Your task to perform on an android device: add a contact Image 0: 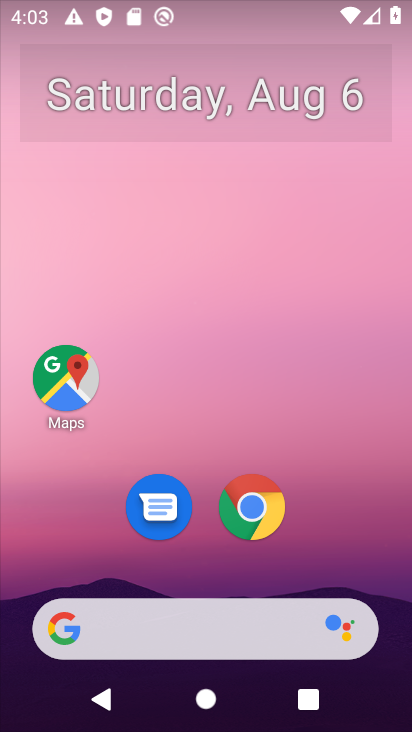
Step 0: drag from (209, 443) to (221, 147)
Your task to perform on an android device: add a contact Image 1: 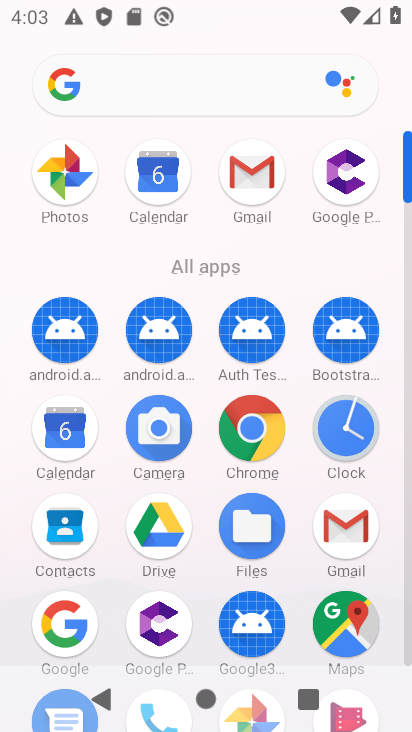
Step 1: drag from (250, 485) to (269, 172)
Your task to perform on an android device: add a contact Image 2: 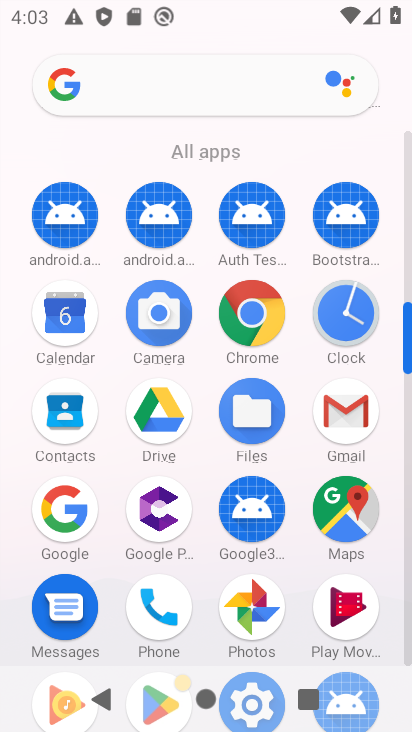
Step 2: click (263, 603)
Your task to perform on an android device: add a contact Image 3: 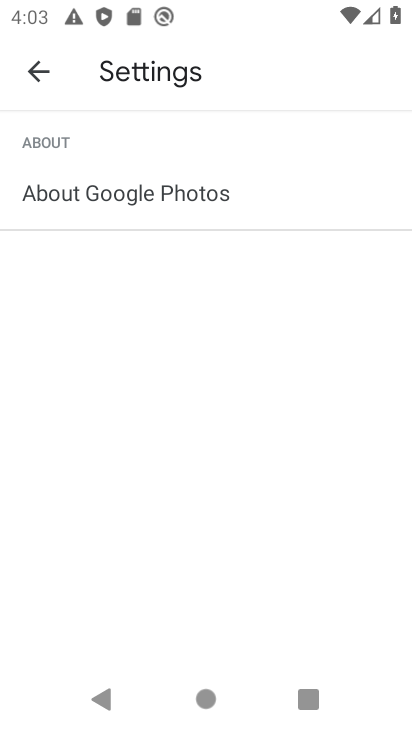
Step 3: press home button
Your task to perform on an android device: add a contact Image 4: 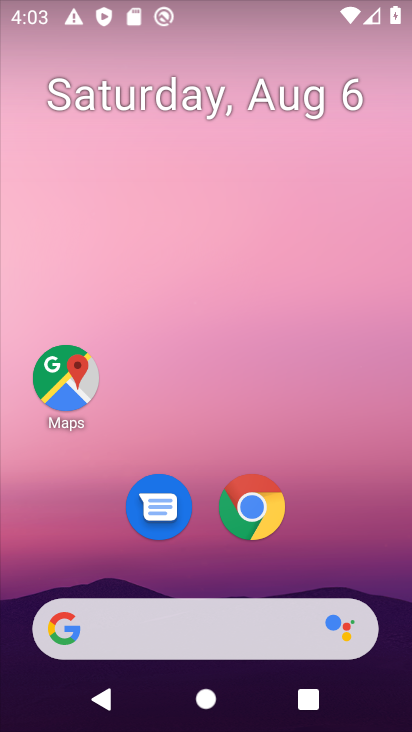
Step 4: drag from (214, 380) to (215, 156)
Your task to perform on an android device: add a contact Image 5: 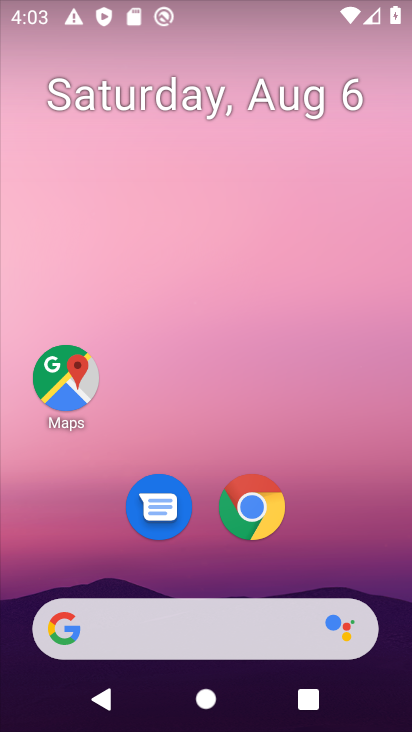
Step 5: drag from (208, 467) to (201, 132)
Your task to perform on an android device: add a contact Image 6: 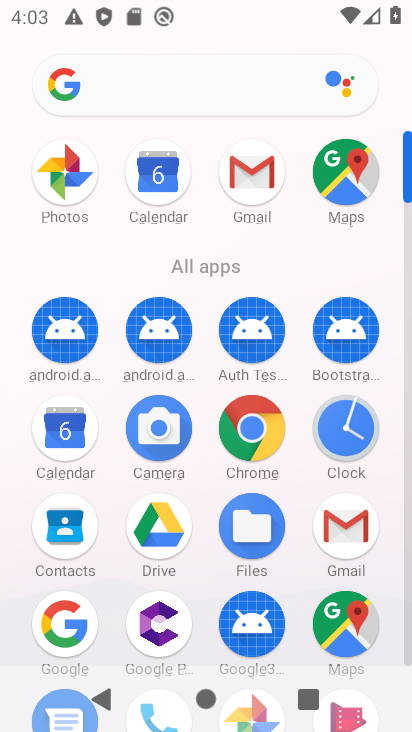
Step 6: click (72, 527)
Your task to perform on an android device: add a contact Image 7: 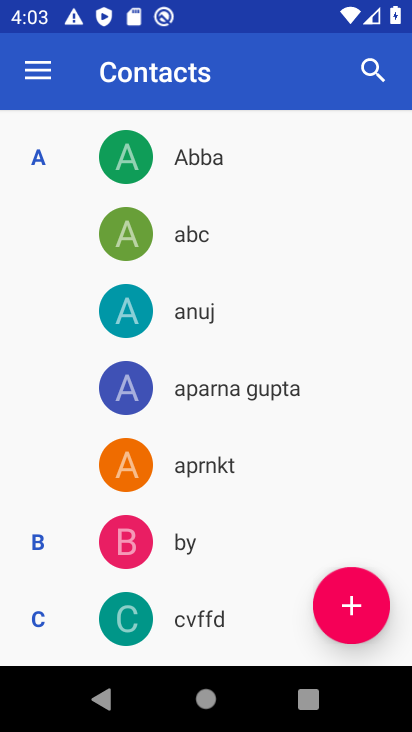
Step 7: task complete